Your task to perform on an android device: see tabs open on other devices in the chrome app Image 0: 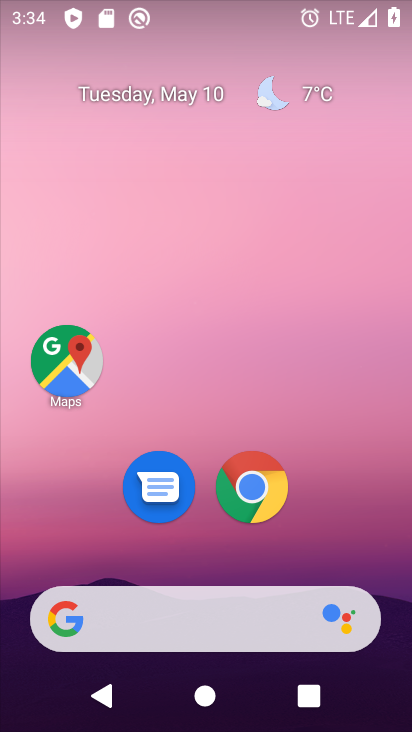
Step 0: click (252, 481)
Your task to perform on an android device: see tabs open on other devices in the chrome app Image 1: 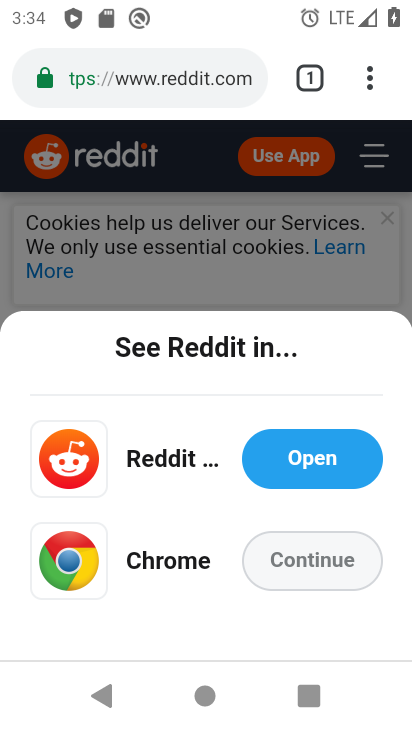
Step 1: task complete